Your task to perform on an android device: turn on priority inbox in the gmail app Image 0: 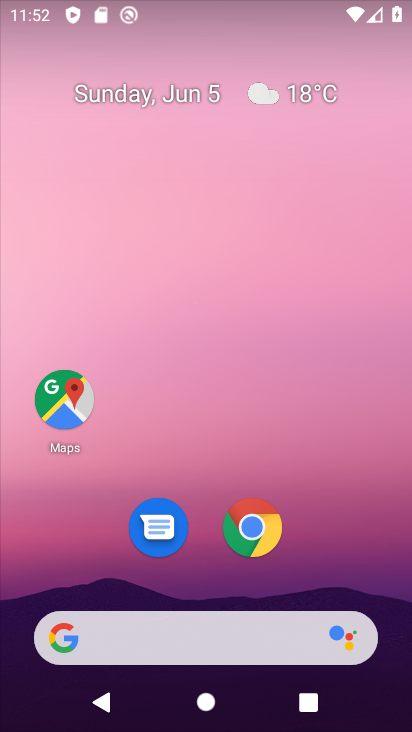
Step 0: drag from (219, 603) to (180, 32)
Your task to perform on an android device: turn on priority inbox in the gmail app Image 1: 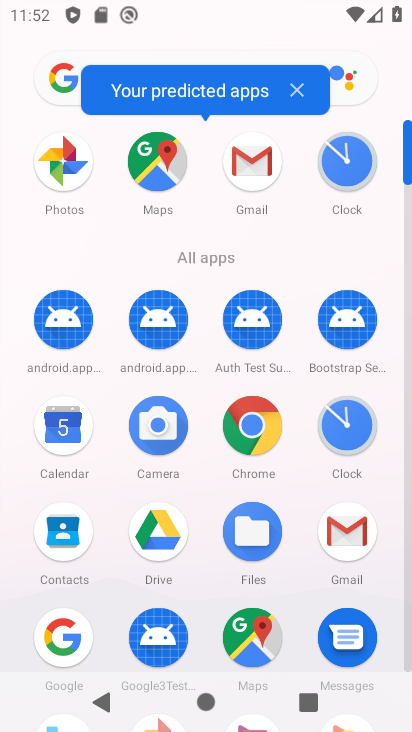
Step 1: click (358, 541)
Your task to perform on an android device: turn on priority inbox in the gmail app Image 2: 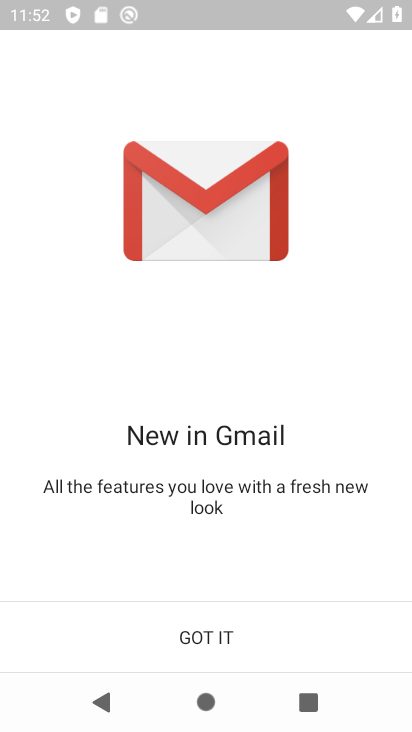
Step 2: click (267, 619)
Your task to perform on an android device: turn on priority inbox in the gmail app Image 3: 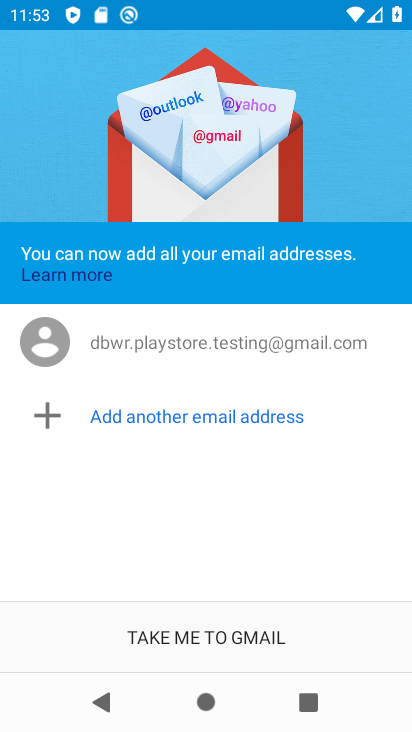
Step 3: click (245, 624)
Your task to perform on an android device: turn on priority inbox in the gmail app Image 4: 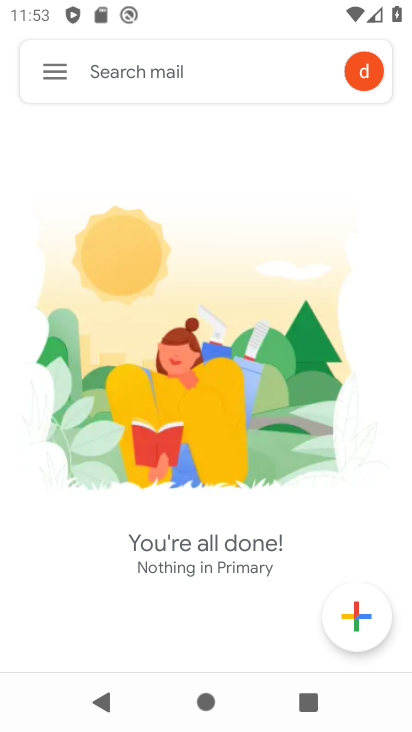
Step 4: click (47, 73)
Your task to perform on an android device: turn on priority inbox in the gmail app Image 5: 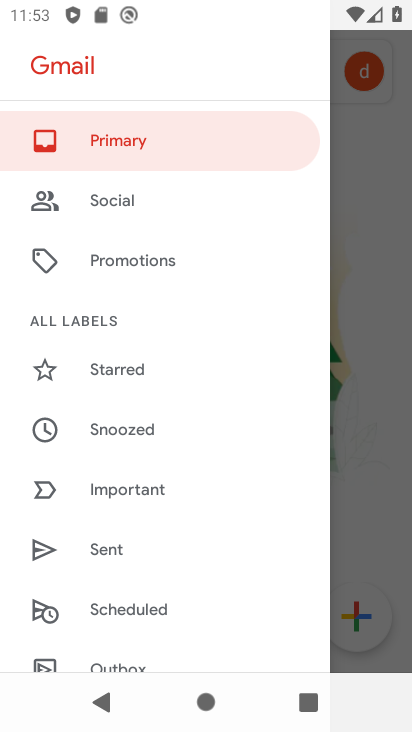
Step 5: drag from (188, 560) to (147, 4)
Your task to perform on an android device: turn on priority inbox in the gmail app Image 6: 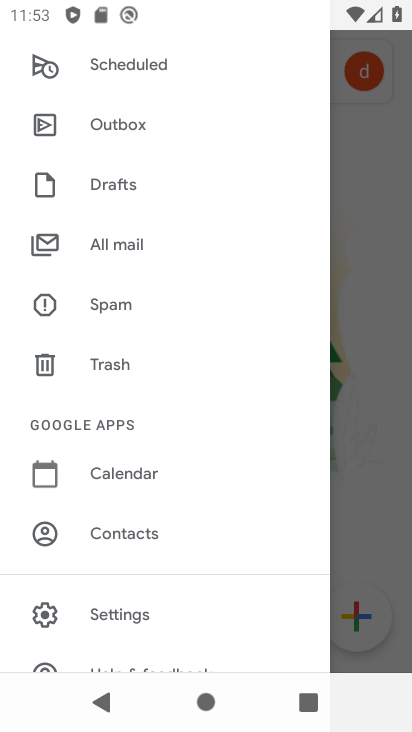
Step 6: click (115, 621)
Your task to perform on an android device: turn on priority inbox in the gmail app Image 7: 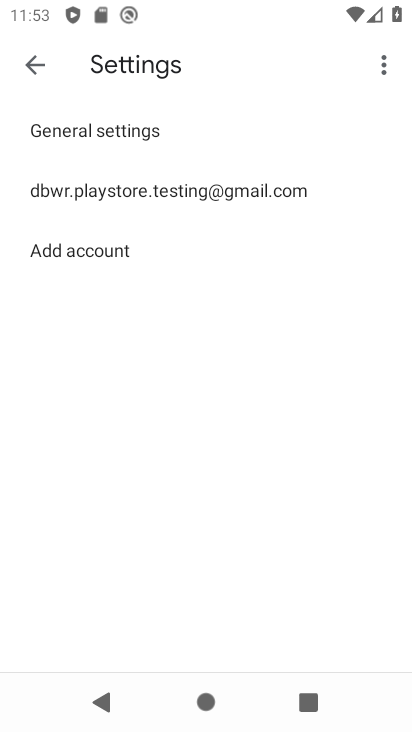
Step 7: click (108, 197)
Your task to perform on an android device: turn on priority inbox in the gmail app Image 8: 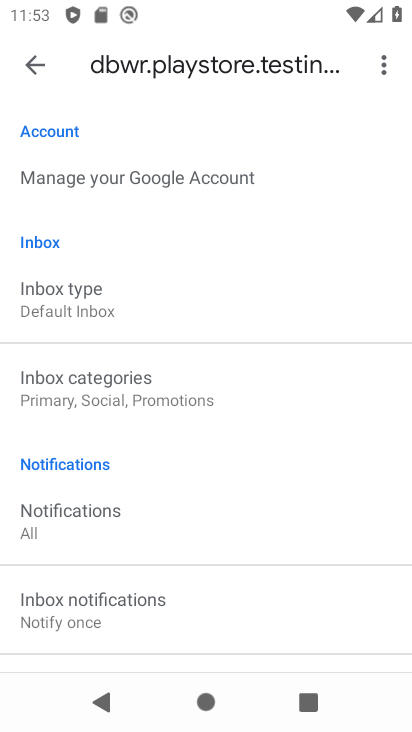
Step 8: click (94, 304)
Your task to perform on an android device: turn on priority inbox in the gmail app Image 9: 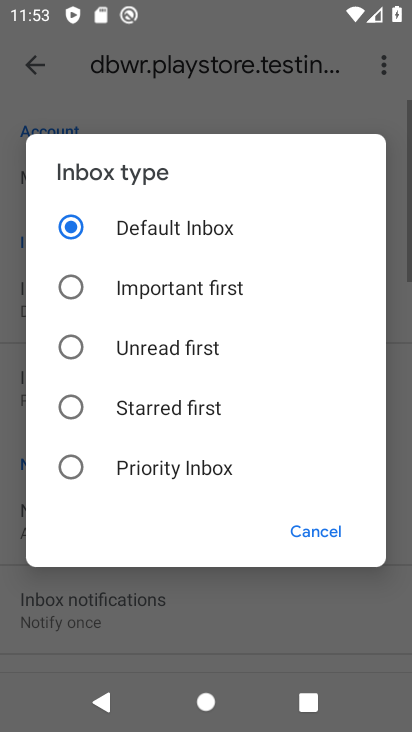
Step 9: click (136, 471)
Your task to perform on an android device: turn on priority inbox in the gmail app Image 10: 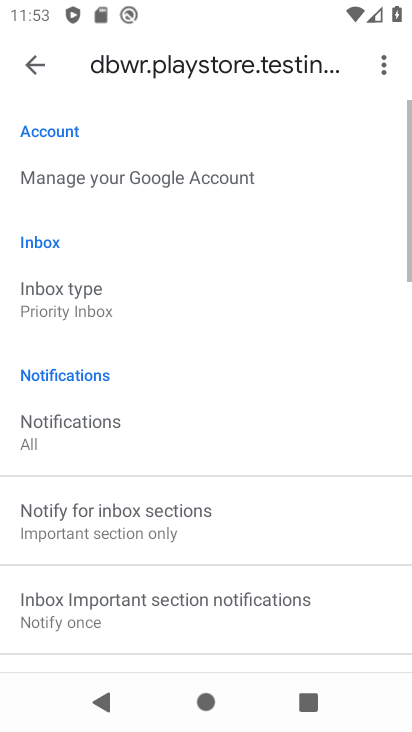
Step 10: task complete